Your task to perform on an android device: turn off javascript in the chrome app Image 0: 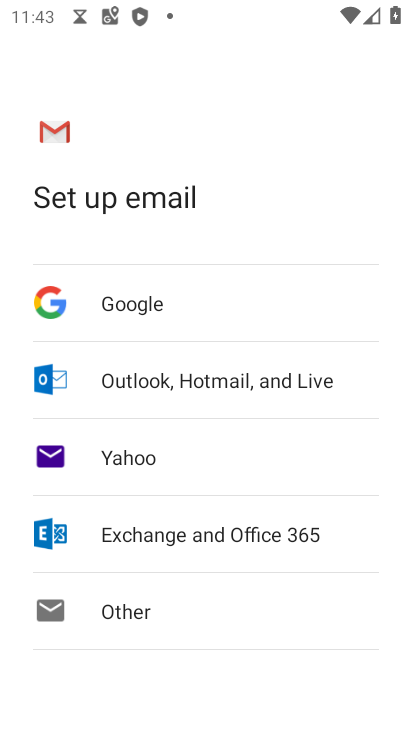
Step 0: press home button
Your task to perform on an android device: turn off javascript in the chrome app Image 1: 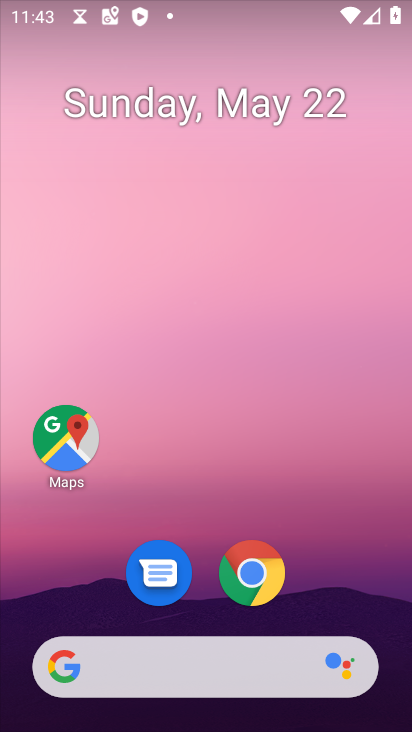
Step 1: click (259, 575)
Your task to perform on an android device: turn off javascript in the chrome app Image 2: 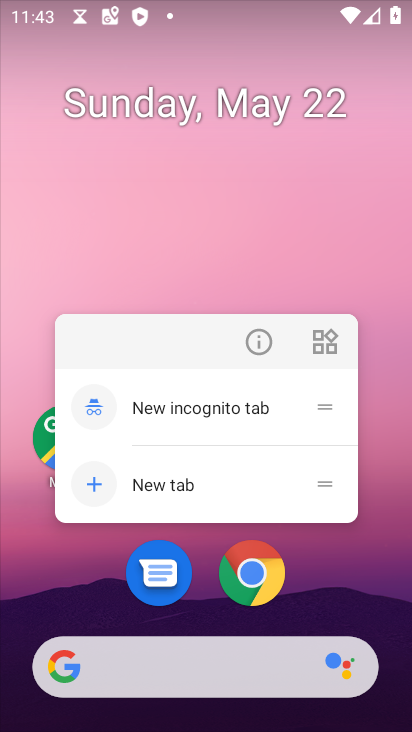
Step 2: click (250, 585)
Your task to perform on an android device: turn off javascript in the chrome app Image 3: 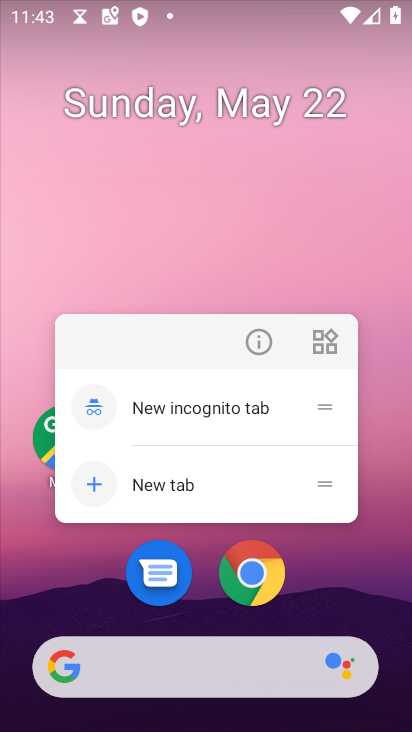
Step 3: click (250, 589)
Your task to perform on an android device: turn off javascript in the chrome app Image 4: 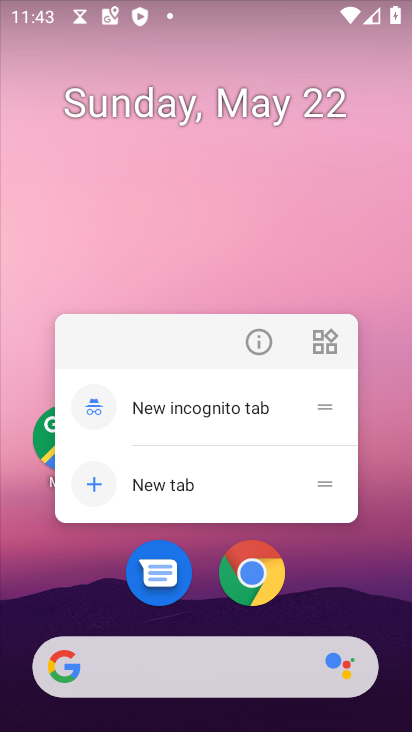
Step 4: click (253, 581)
Your task to perform on an android device: turn off javascript in the chrome app Image 5: 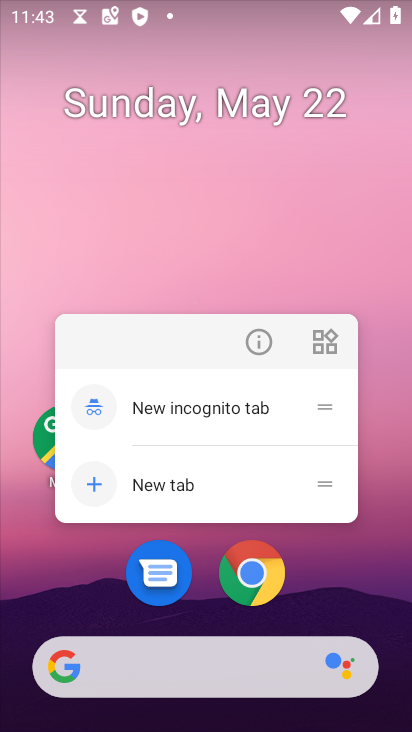
Step 5: click (253, 584)
Your task to perform on an android device: turn off javascript in the chrome app Image 6: 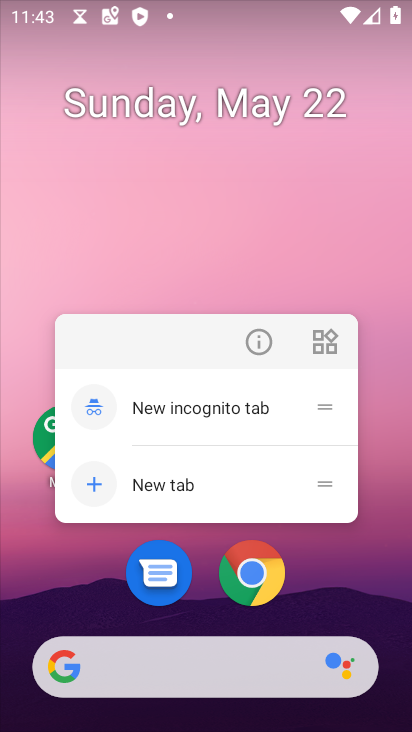
Step 6: click (249, 590)
Your task to perform on an android device: turn off javascript in the chrome app Image 7: 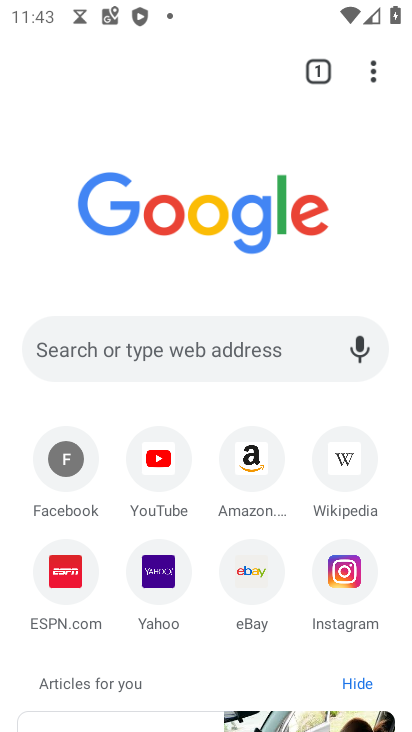
Step 7: drag from (373, 80) to (206, 598)
Your task to perform on an android device: turn off javascript in the chrome app Image 8: 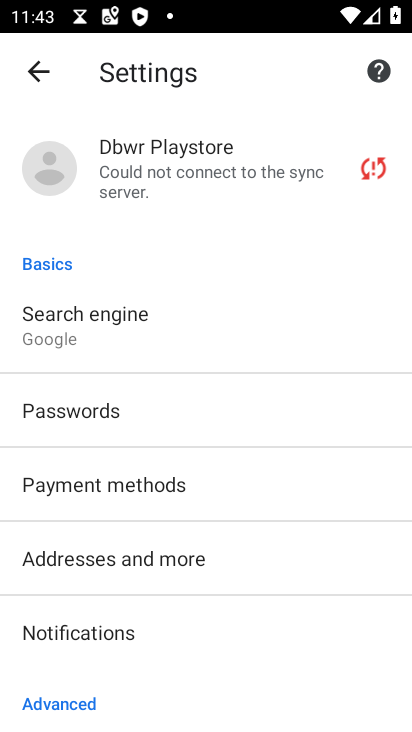
Step 8: drag from (199, 620) to (312, 237)
Your task to perform on an android device: turn off javascript in the chrome app Image 9: 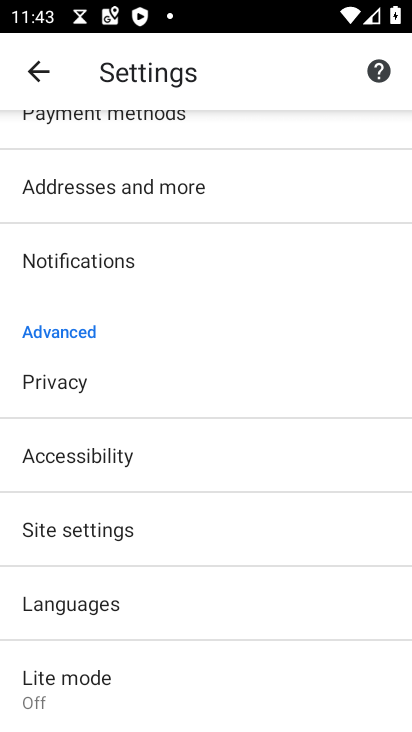
Step 9: click (129, 526)
Your task to perform on an android device: turn off javascript in the chrome app Image 10: 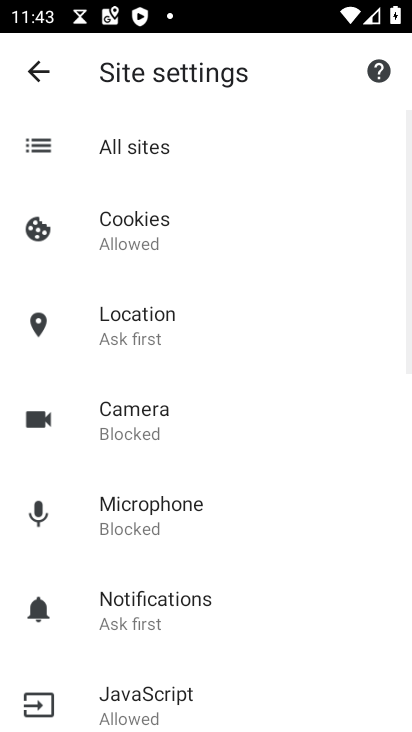
Step 10: click (148, 695)
Your task to perform on an android device: turn off javascript in the chrome app Image 11: 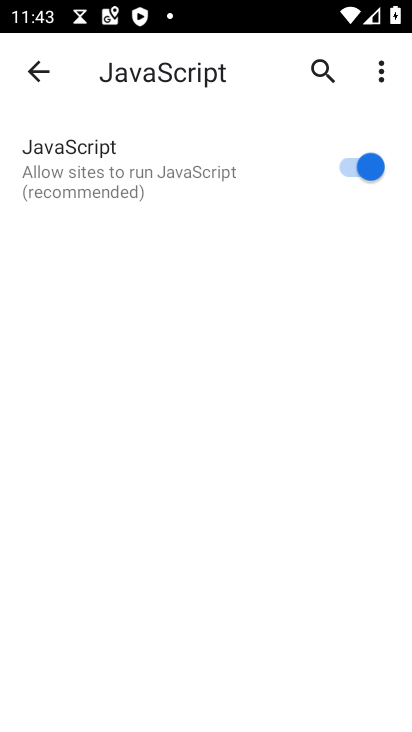
Step 11: click (358, 172)
Your task to perform on an android device: turn off javascript in the chrome app Image 12: 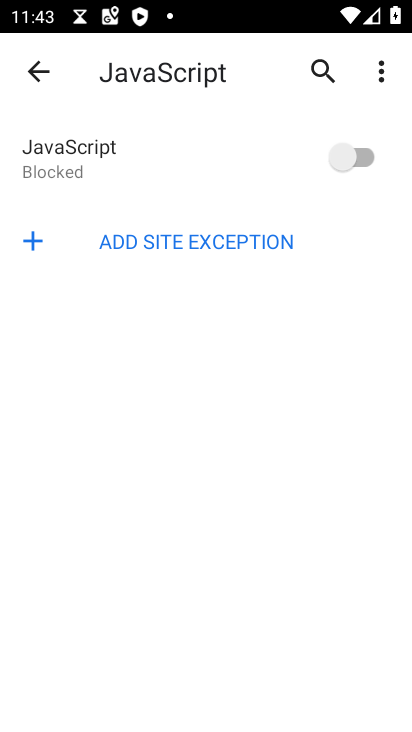
Step 12: task complete